Your task to perform on an android device: create a new album in the google photos Image 0: 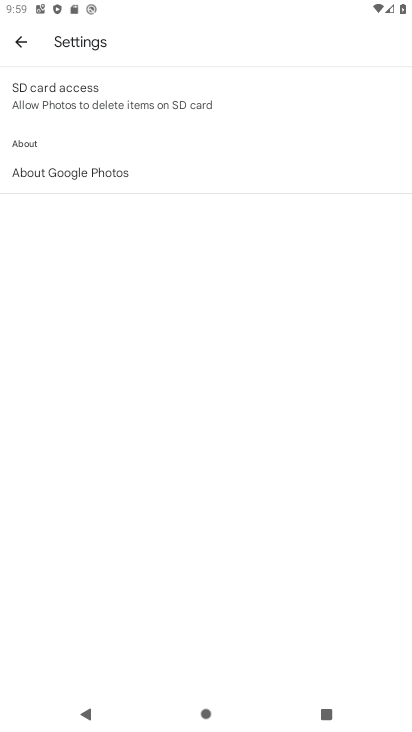
Step 0: press home button
Your task to perform on an android device: create a new album in the google photos Image 1: 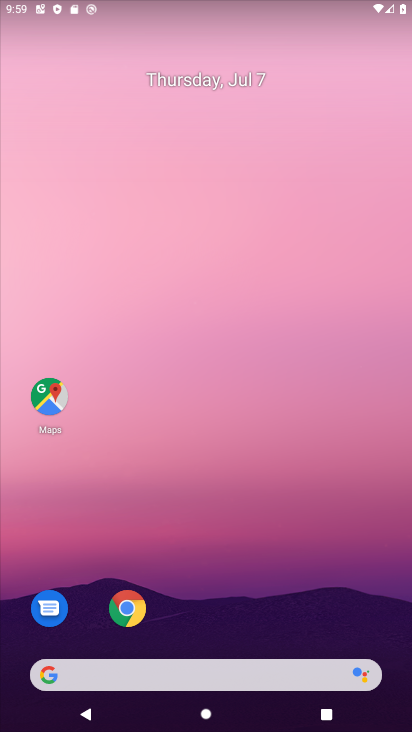
Step 1: drag from (201, 627) to (160, 115)
Your task to perform on an android device: create a new album in the google photos Image 2: 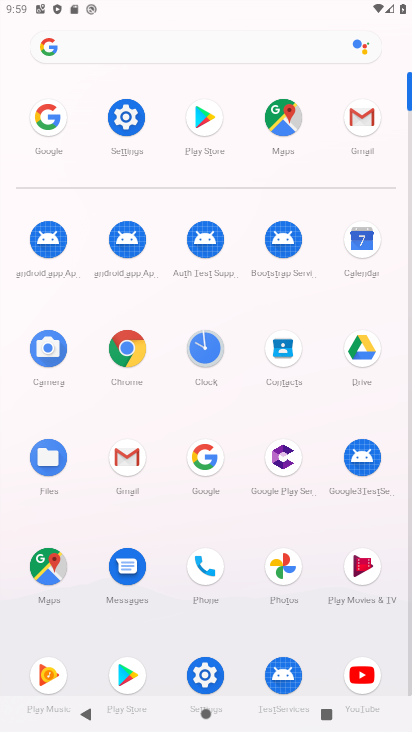
Step 2: click (288, 561)
Your task to perform on an android device: create a new album in the google photos Image 3: 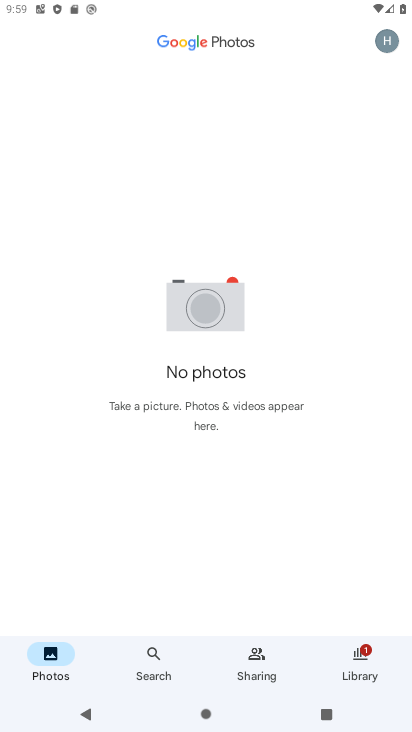
Step 3: click (148, 664)
Your task to perform on an android device: create a new album in the google photos Image 4: 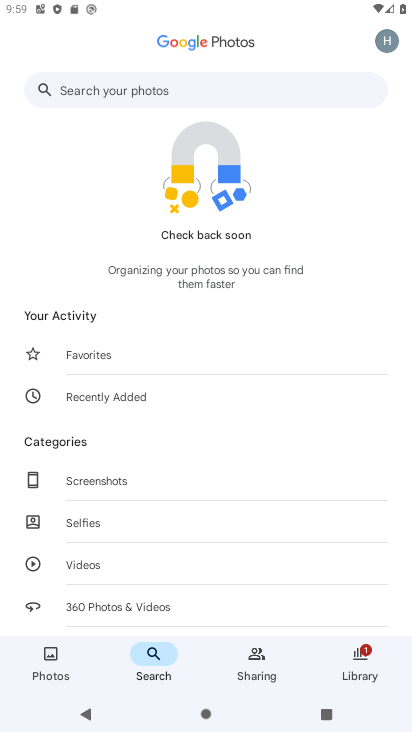
Step 4: click (136, 89)
Your task to perform on an android device: create a new album in the google photos Image 5: 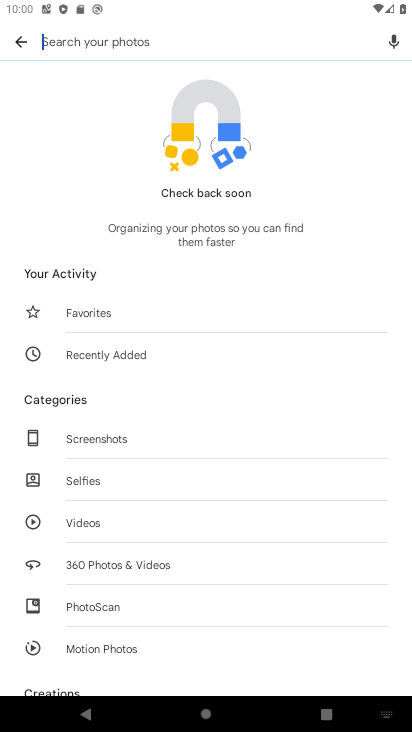
Step 5: drag from (143, 635) to (187, 621)
Your task to perform on an android device: create a new album in the google photos Image 6: 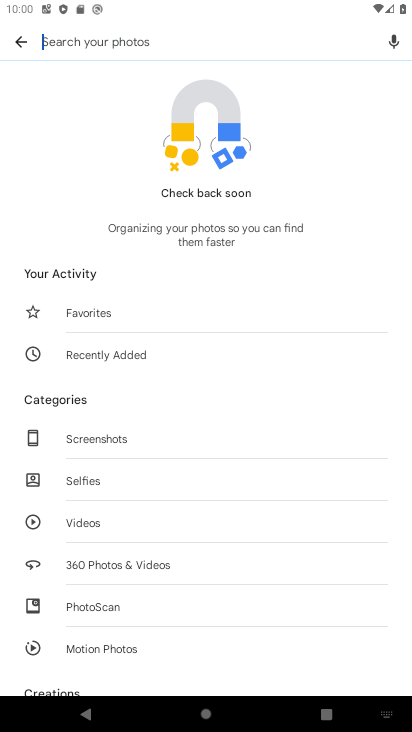
Step 6: press back button
Your task to perform on an android device: create a new album in the google photos Image 7: 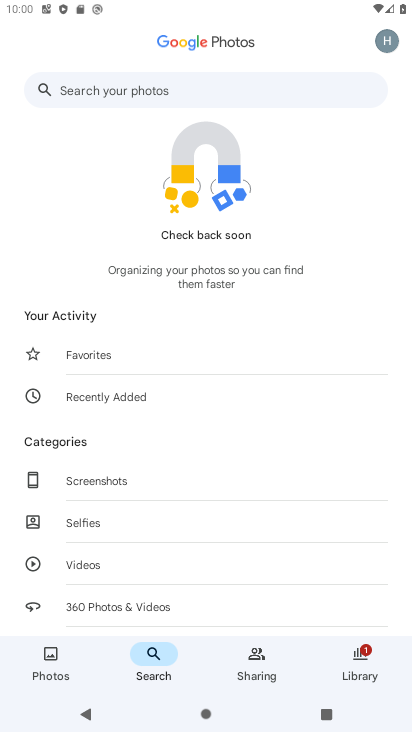
Step 7: click (351, 671)
Your task to perform on an android device: create a new album in the google photos Image 8: 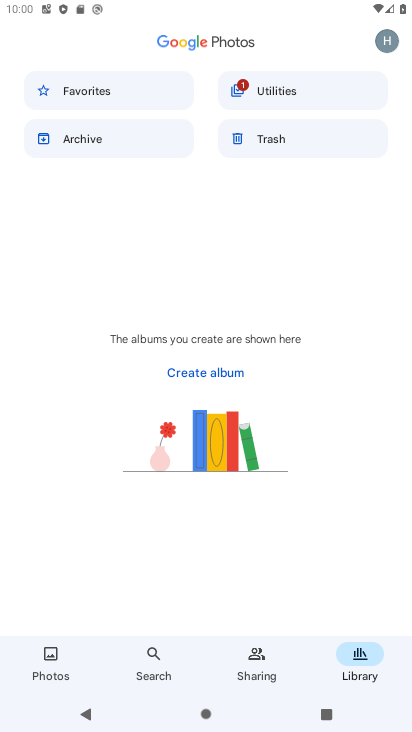
Step 8: click (206, 369)
Your task to perform on an android device: create a new album in the google photos Image 9: 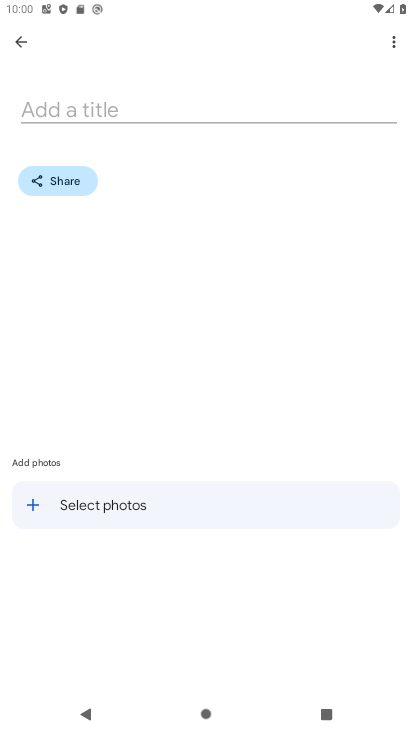
Step 9: click (27, 505)
Your task to perform on an android device: create a new album in the google photos Image 10: 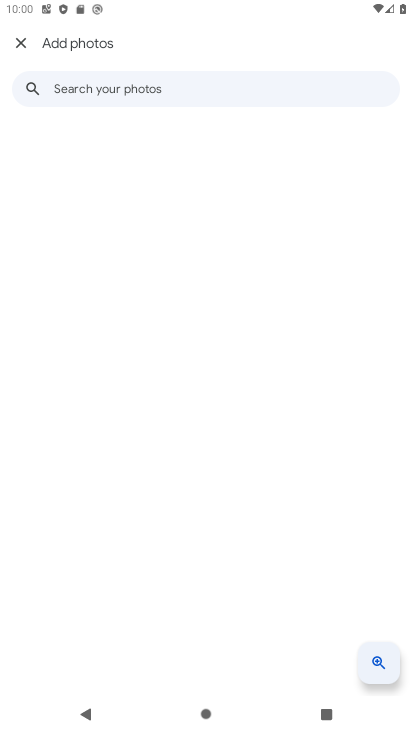
Step 10: task complete